Your task to perform on an android device: change keyboard looks Image 0: 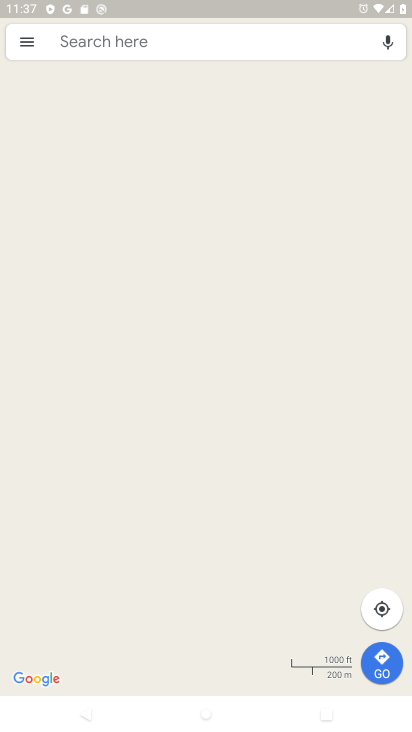
Step 0: press home button
Your task to perform on an android device: change keyboard looks Image 1: 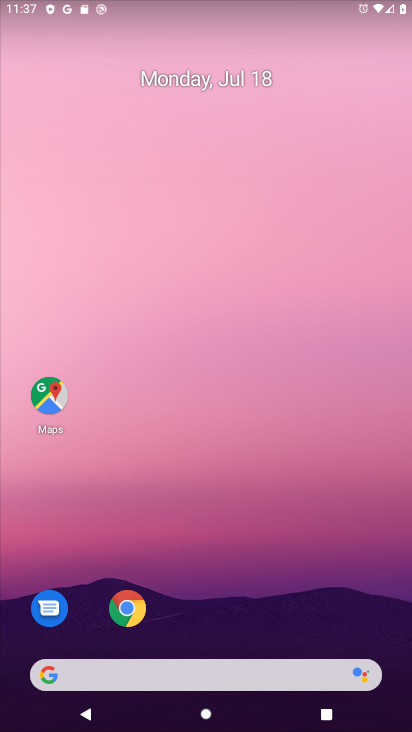
Step 1: click (263, 75)
Your task to perform on an android device: change keyboard looks Image 2: 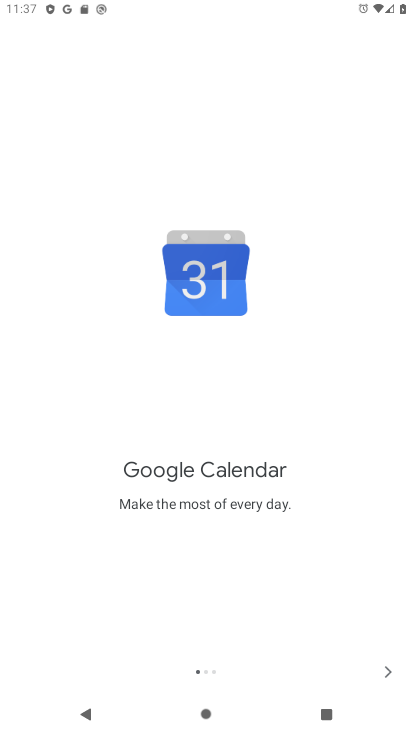
Step 2: press home button
Your task to perform on an android device: change keyboard looks Image 3: 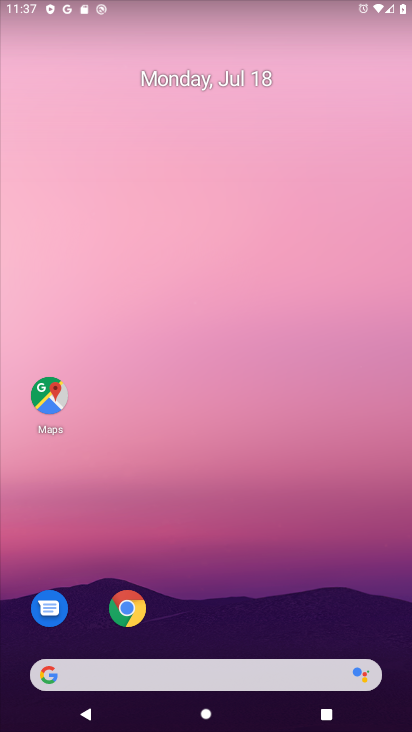
Step 3: drag from (294, 639) to (294, 77)
Your task to perform on an android device: change keyboard looks Image 4: 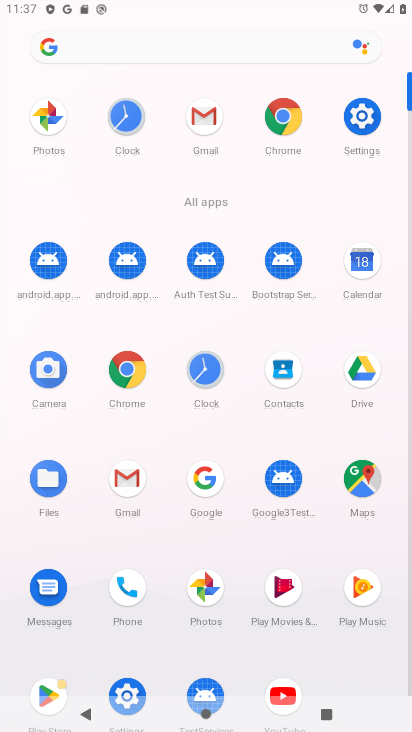
Step 4: click (362, 109)
Your task to perform on an android device: change keyboard looks Image 5: 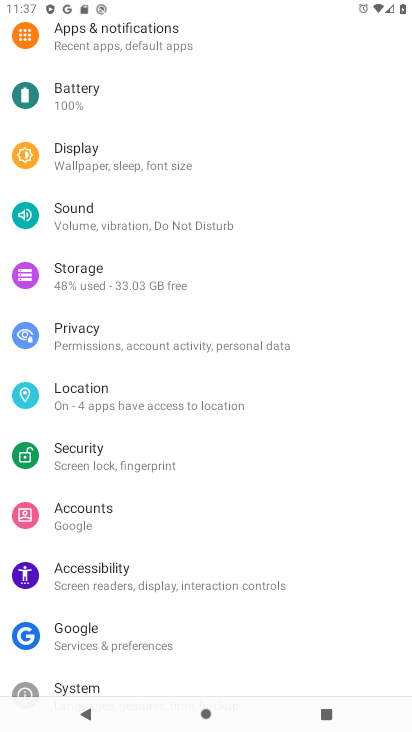
Step 5: click (72, 688)
Your task to perform on an android device: change keyboard looks Image 6: 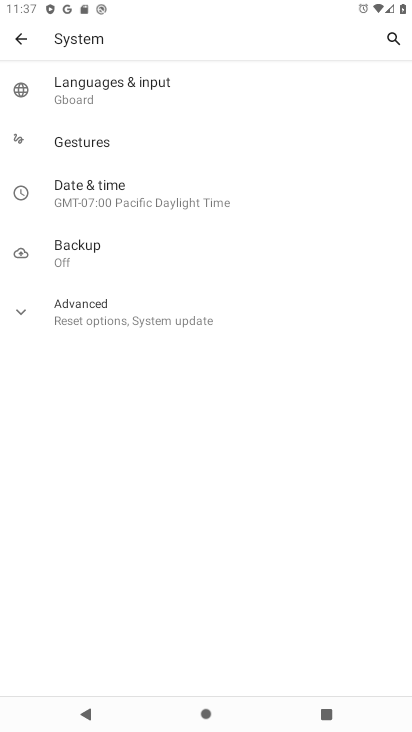
Step 6: click (170, 87)
Your task to perform on an android device: change keyboard looks Image 7: 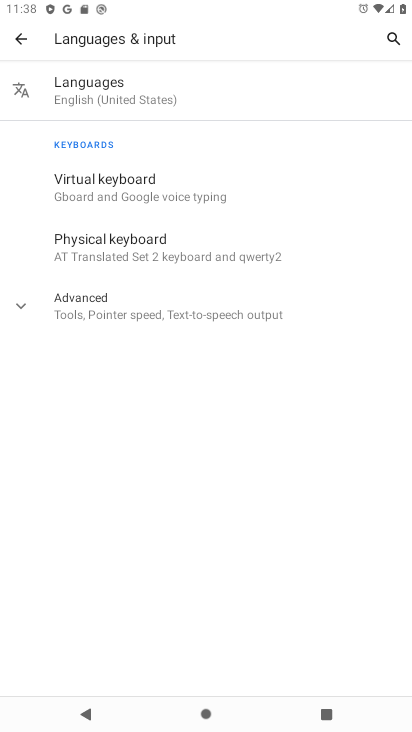
Step 7: click (118, 181)
Your task to perform on an android device: change keyboard looks Image 8: 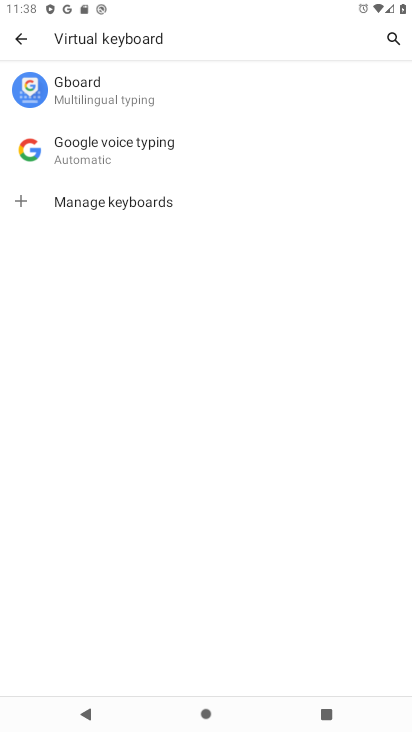
Step 8: click (143, 88)
Your task to perform on an android device: change keyboard looks Image 9: 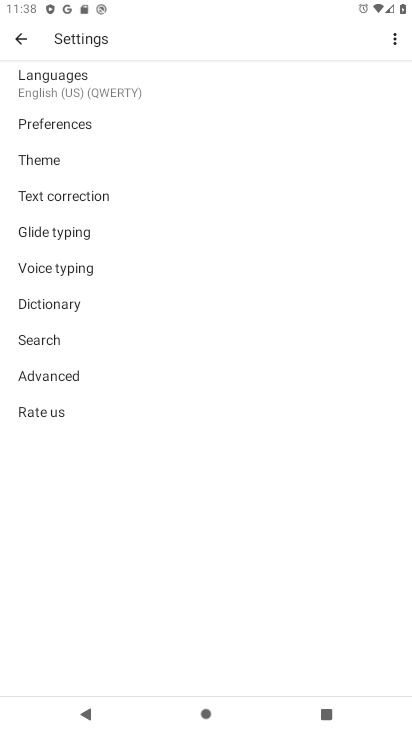
Step 9: click (68, 166)
Your task to perform on an android device: change keyboard looks Image 10: 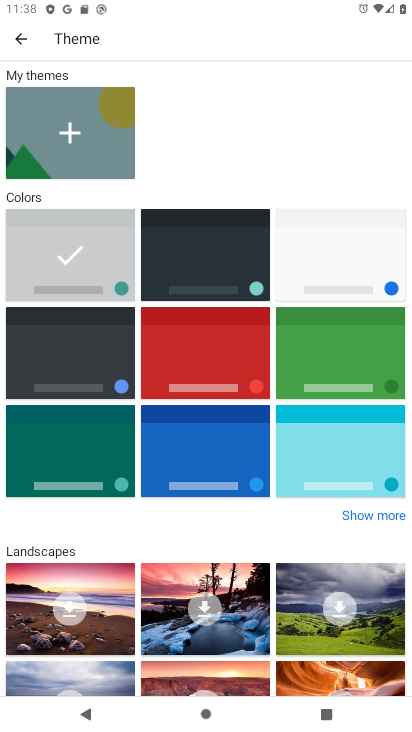
Step 10: click (199, 372)
Your task to perform on an android device: change keyboard looks Image 11: 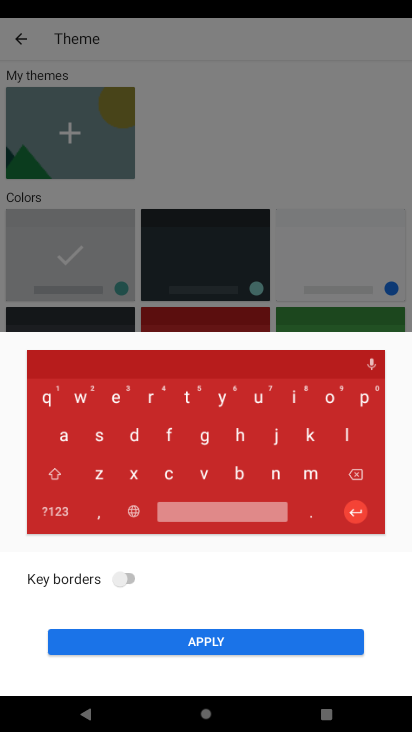
Step 11: click (268, 652)
Your task to perform on an android device: change keyboard looks Image 12: 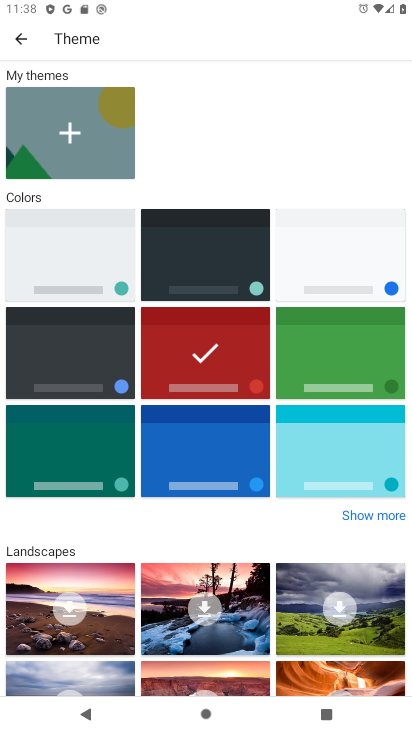
Step 12: task complete